Your task to perform on an android device: turn on showing notifications on the lock screen Image 0: 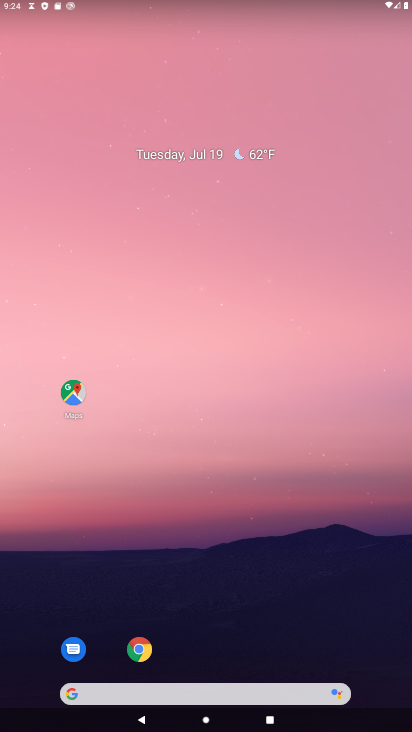
Step 0: drag from (232, 650) to (122, 6)
Your task to perform on an android device: turn on showing notifications on the lock screen Image 1: 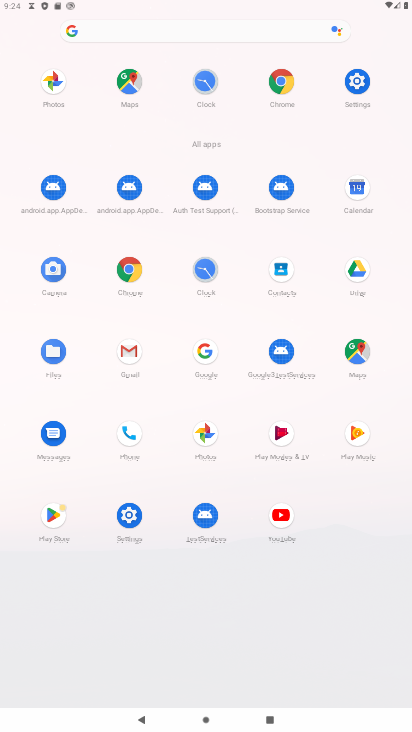
Step 1: click (355, 88)
Your task to perform on an android device: turn on showing notifications on the lock screen Image 2: 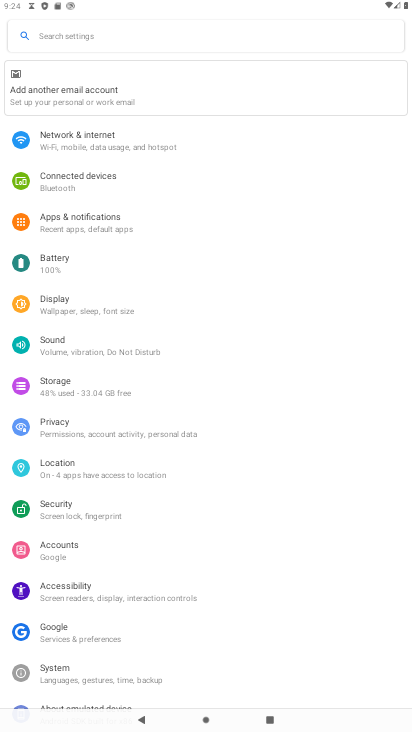
Step 2: click (143, 228)
Your task to perform on an android device: turn on showing notifications on the lock screen Image 3: 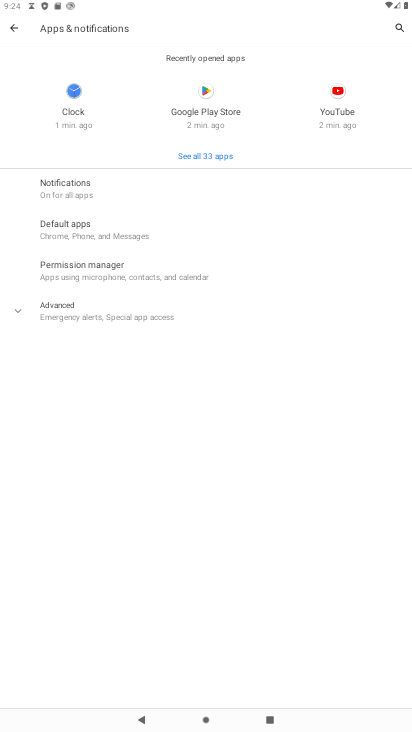
Step 3: click (82, 182)
Your task to perform on an android device: turn on showing notifications on the lock screen Image 4: 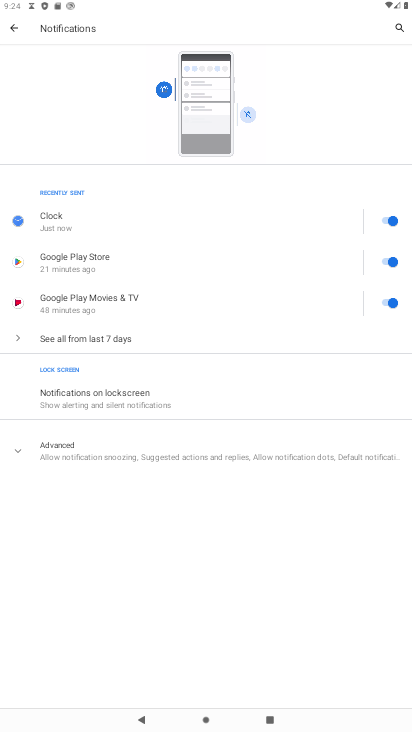
Step 4: click (145, 393)
Your task to perform on an android device: turn on showing notifications on the lock screen Image 5: 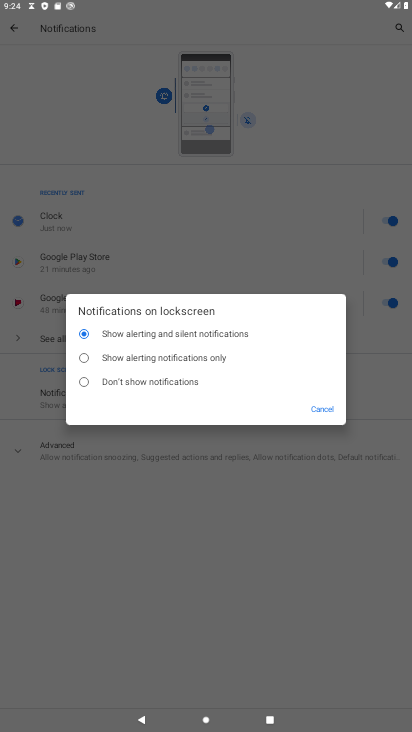
Step 5: task complete